Your task to perform on an android device: Open Youtube and go to the subscriptions tab Image 0: 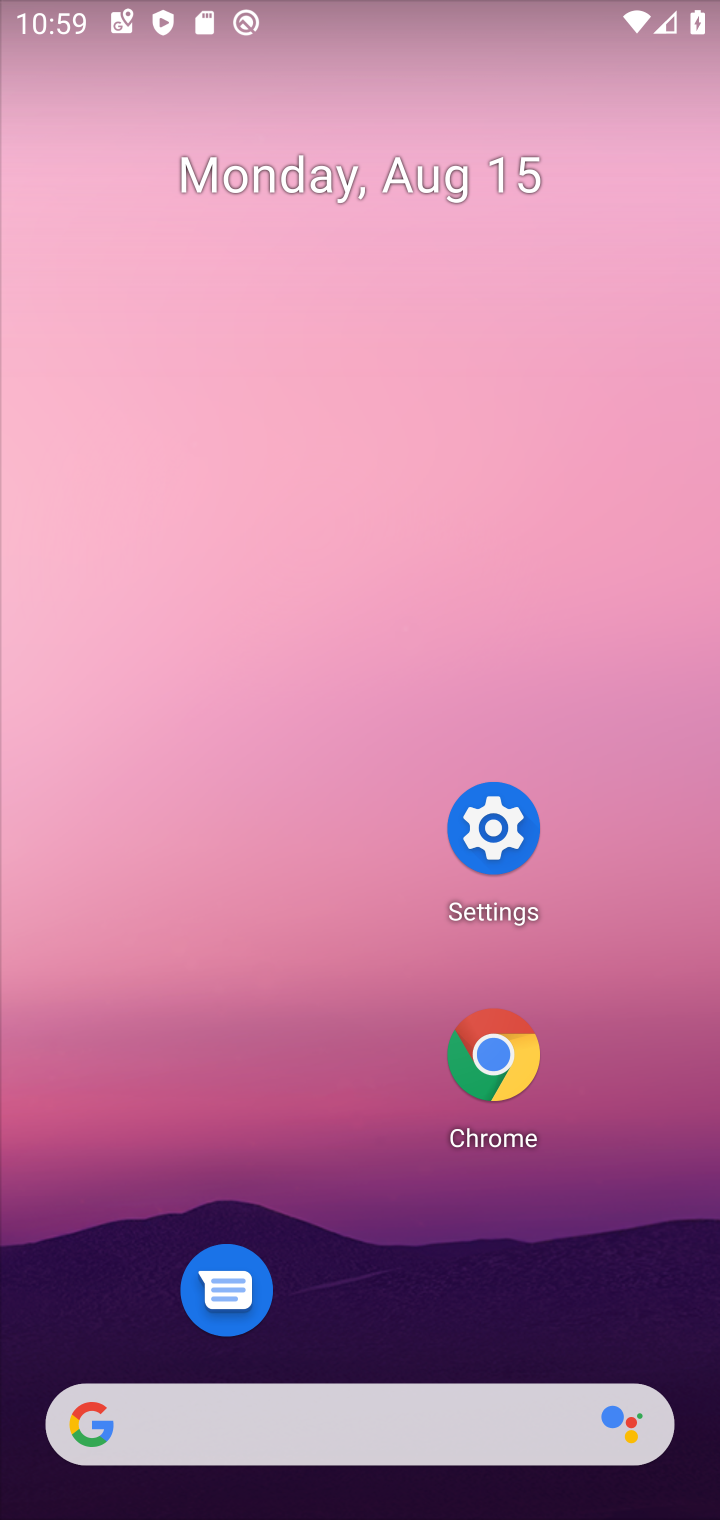
Step 0: press home button
Your task to perform on an android device: Open Youtube and go to the subscriptions tab Image 1: 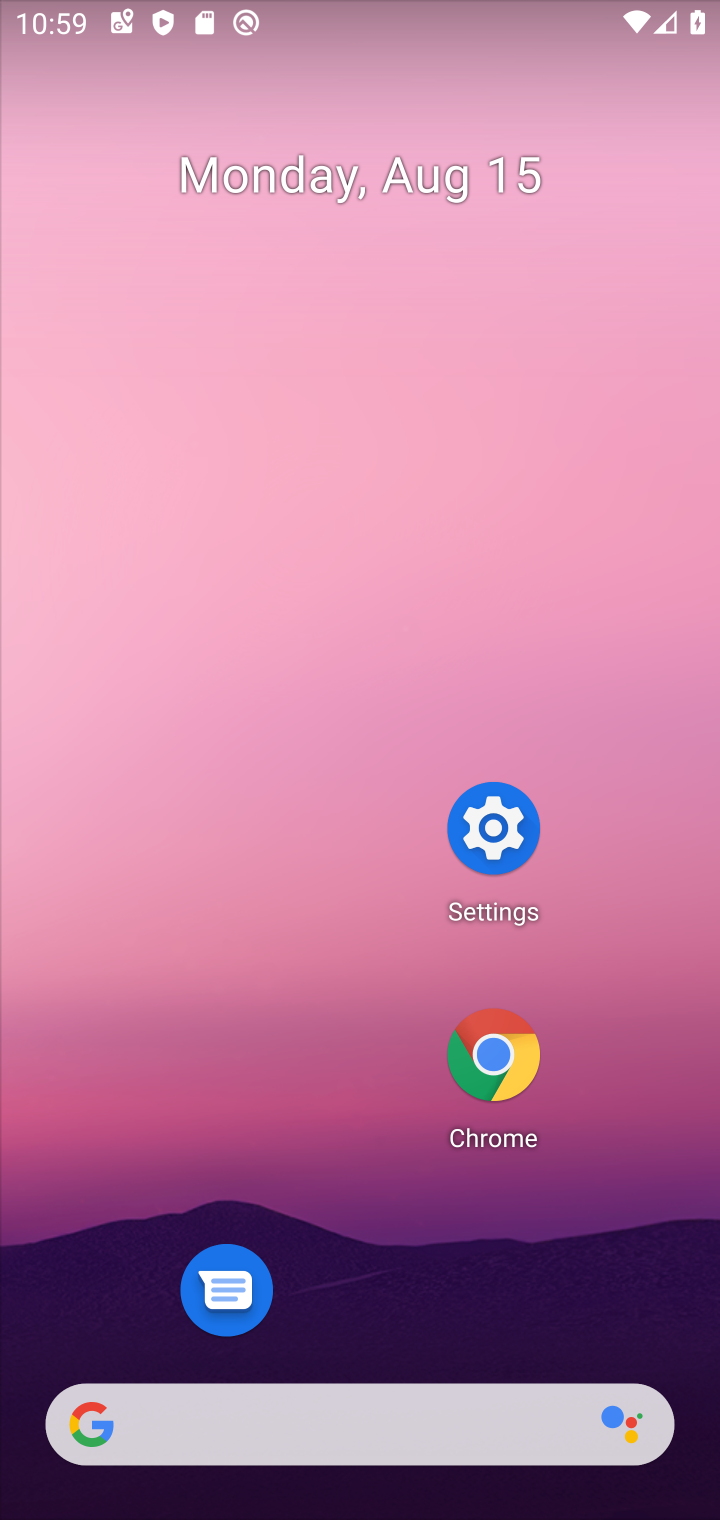
Step 1: drag from (308, 1412) to (598, 139)
Your task to perform on an android device: Open Youtube and go to the subscriptions tab Image 2: 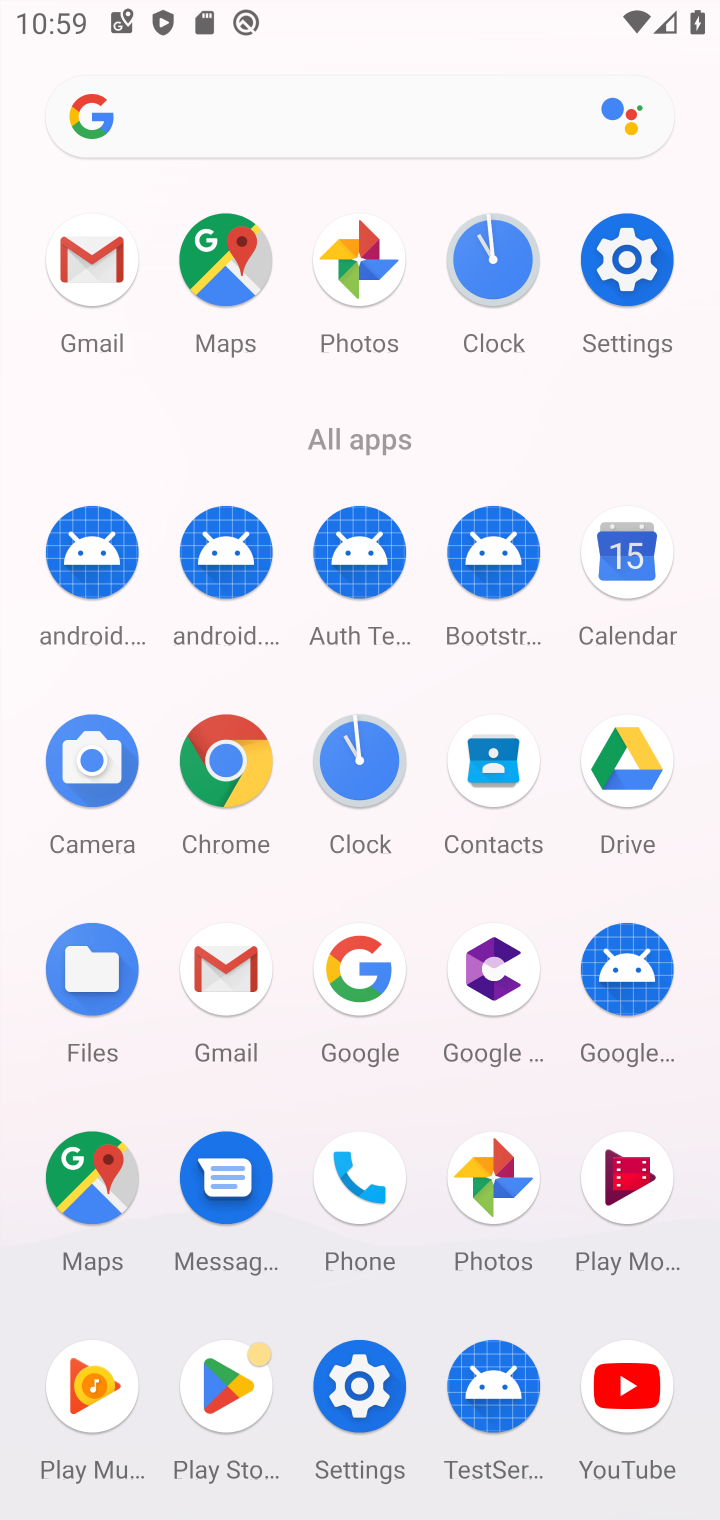
Step 2: click (627, 1388)
Your task to perform on an android device: Open Youtube and go to the subscriptions tab Image 3: 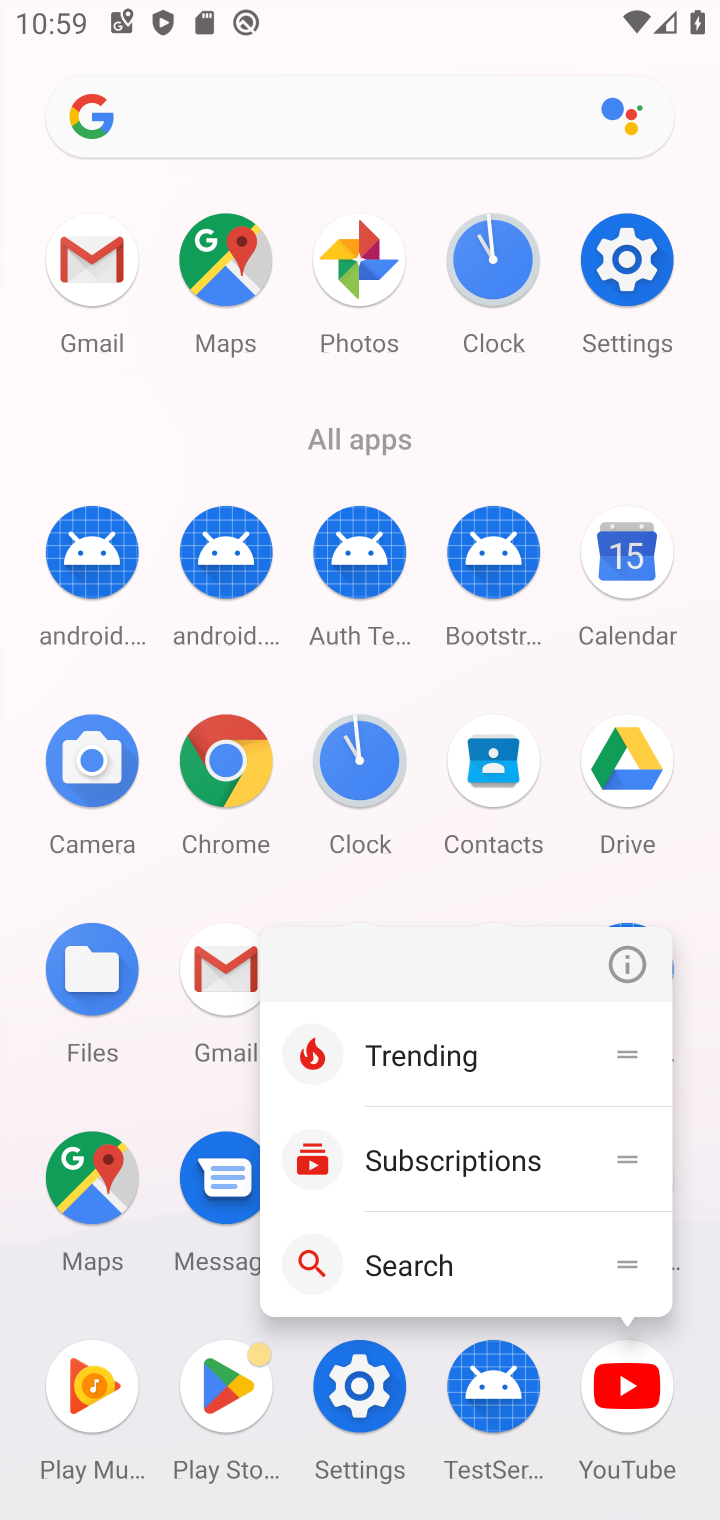
Step 3: click (627, 1386)
Your task to perform on an android device: Open Youtube and go to the subscriptions tab Image 4: 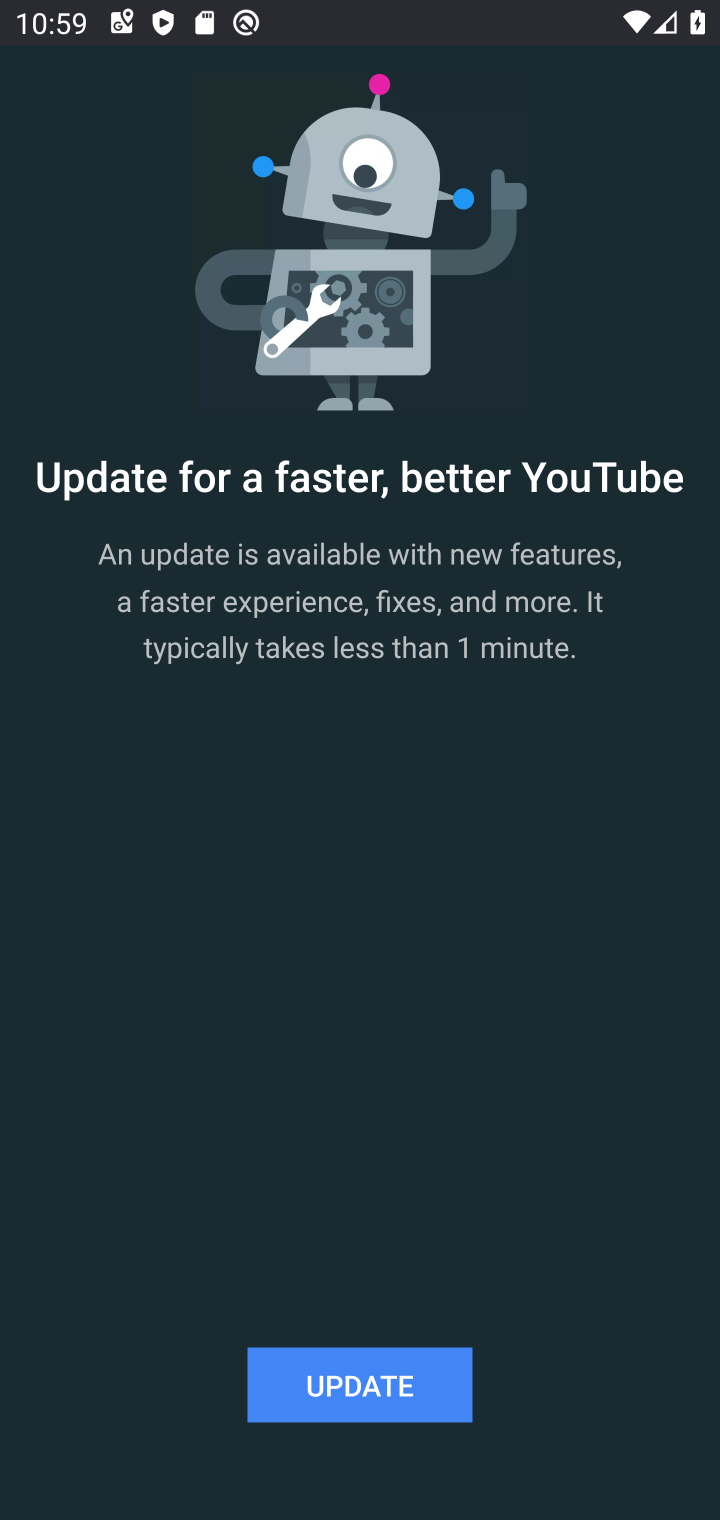
Step 4: click (386, 1385)
Your task to perform on an android device: Open Youtube and go to the subscriptions tab Image 5: 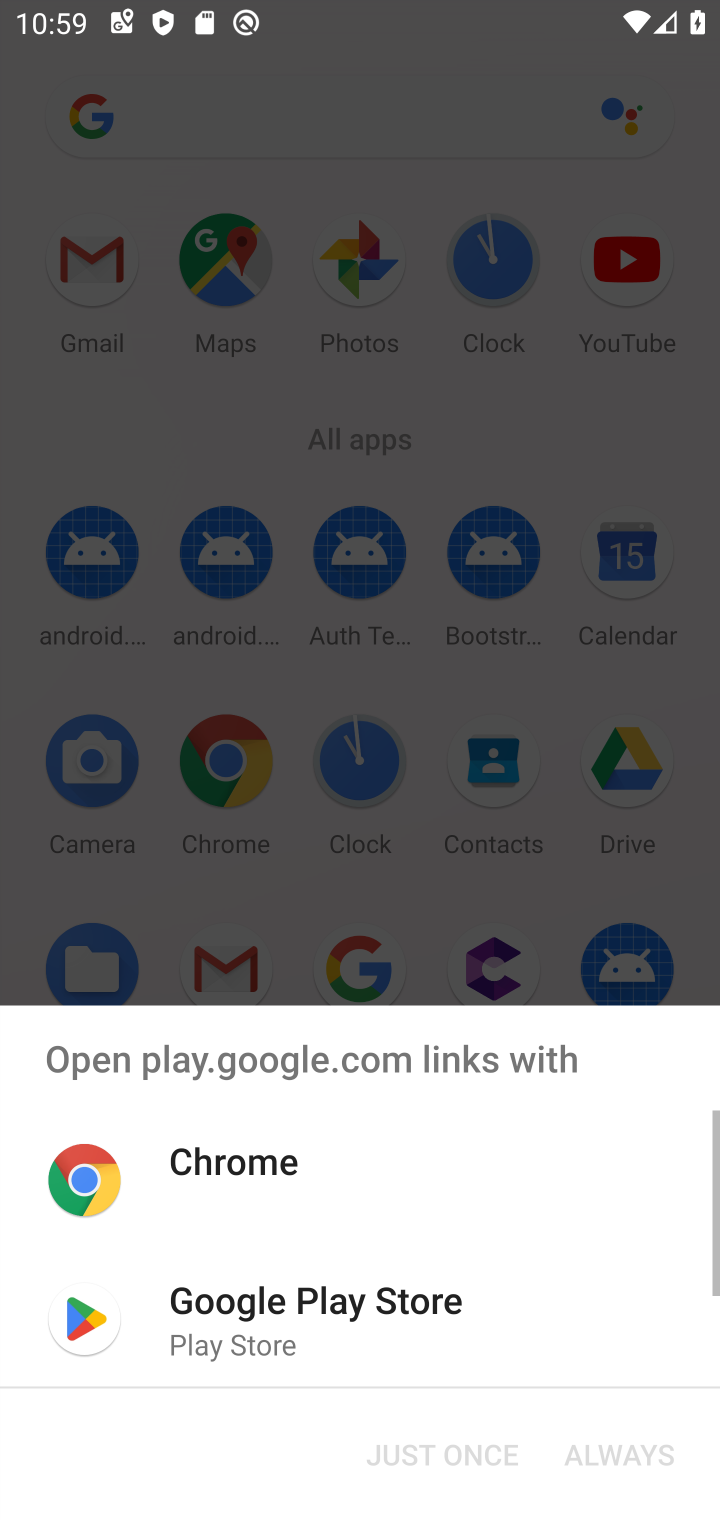
Step 5: click (343, 1316)
Your task to perform on an android device: Open Youtube and go to the subscriptions tab Image 6: 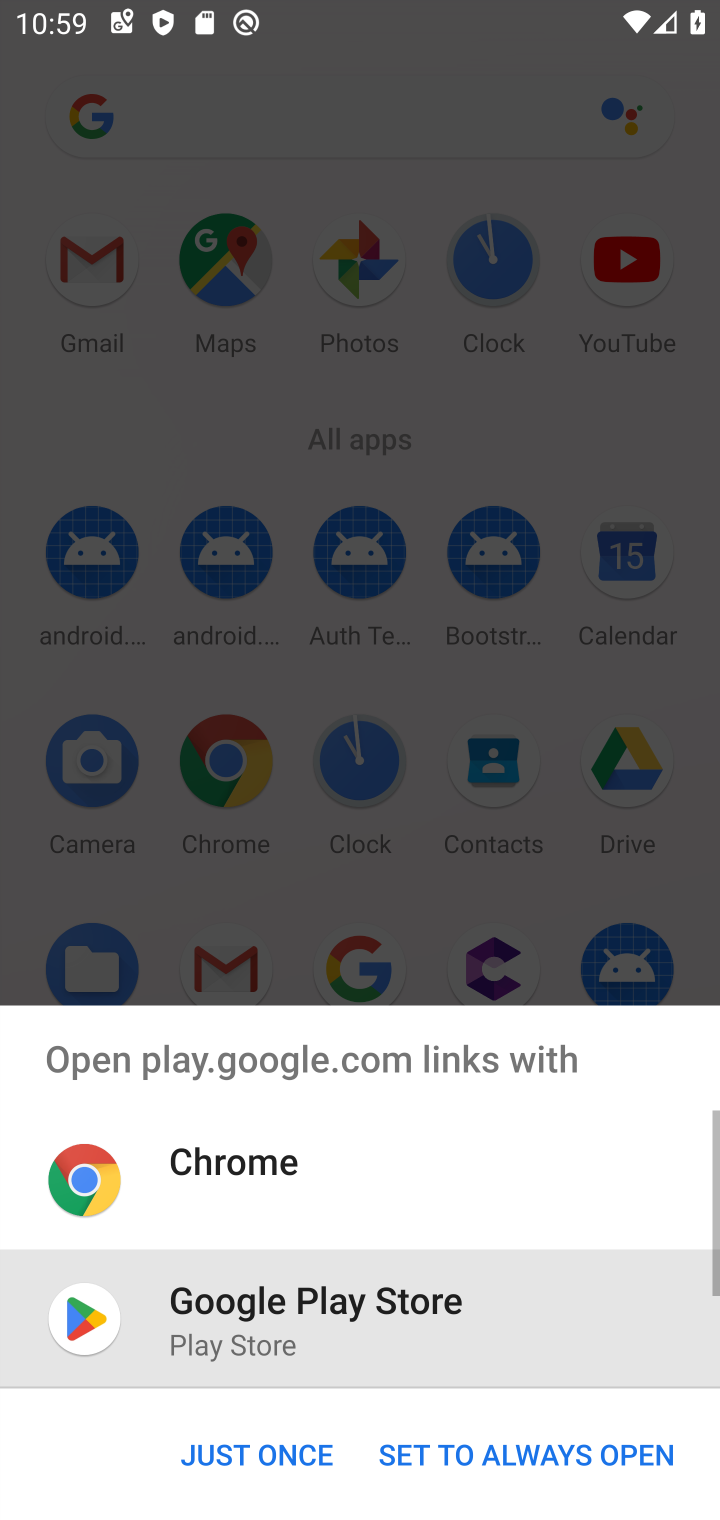
Step 6: click (269, 1444)
Your task to perform on an android device: Open Youtube and go to the subscriptions tab Image 7: 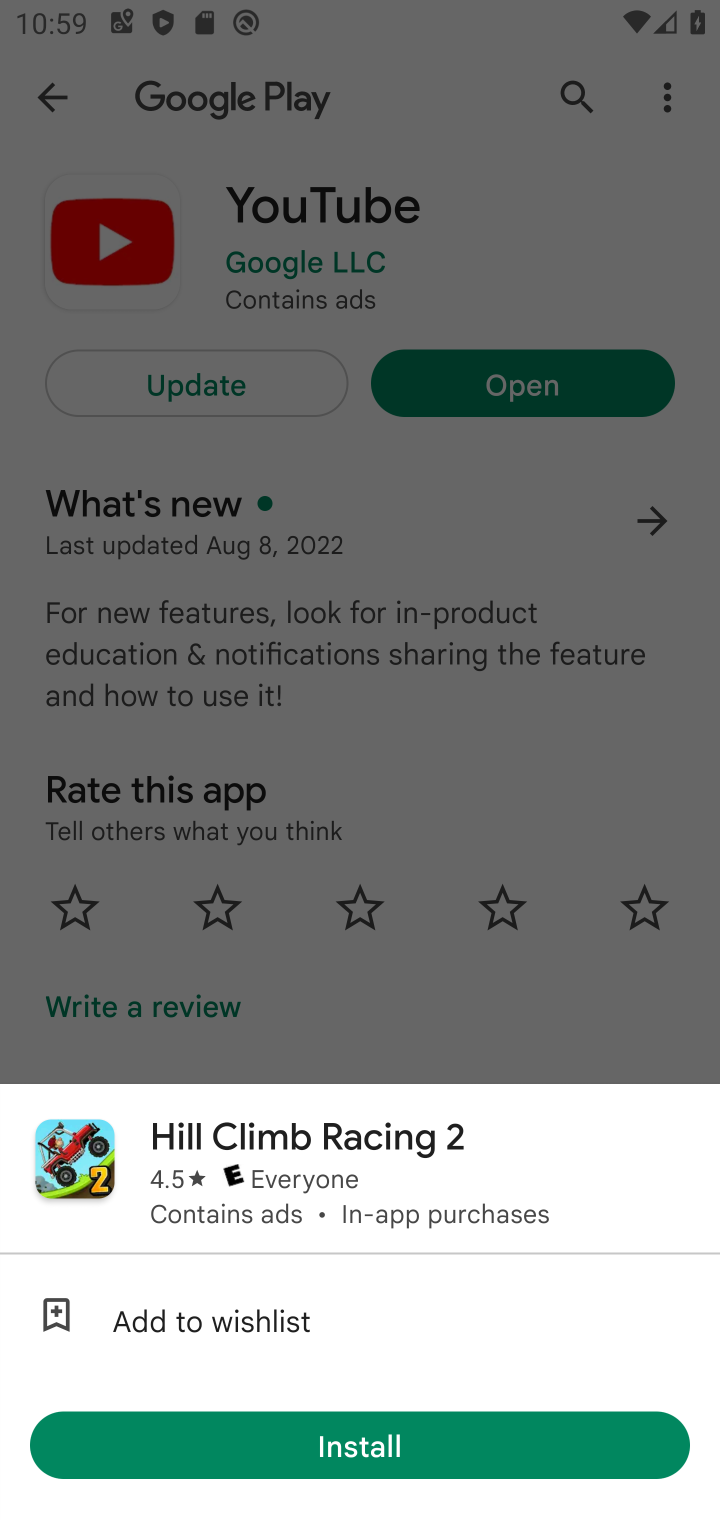
Step 7: click (471, 1010)
Your task to perform on an android device: Open Youtube and go to the subscriptions tab Image 8: 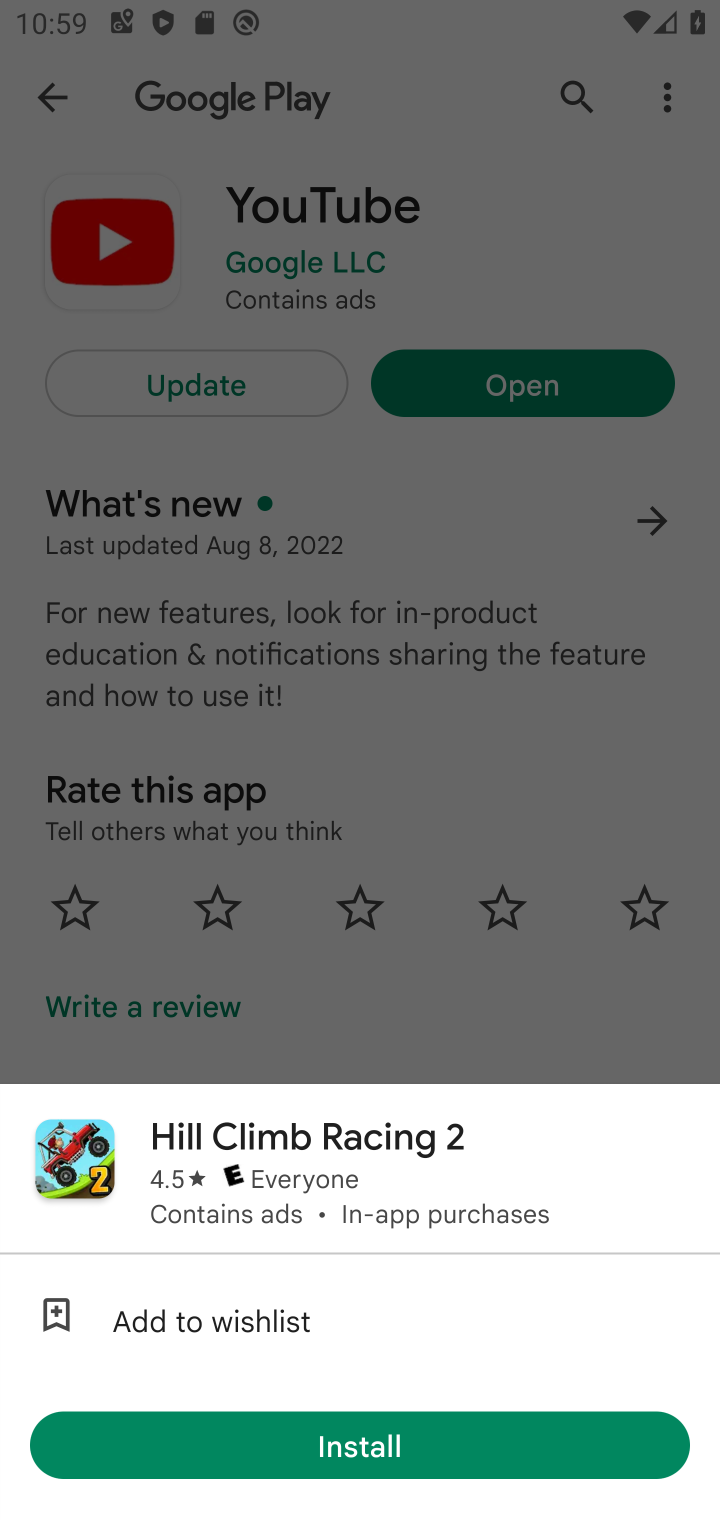
Step 8: drag from (438, 1157) to (501, 1514)
Your task to perform on an android device: Open Youtube and go to the subscriptions tab Image 9: 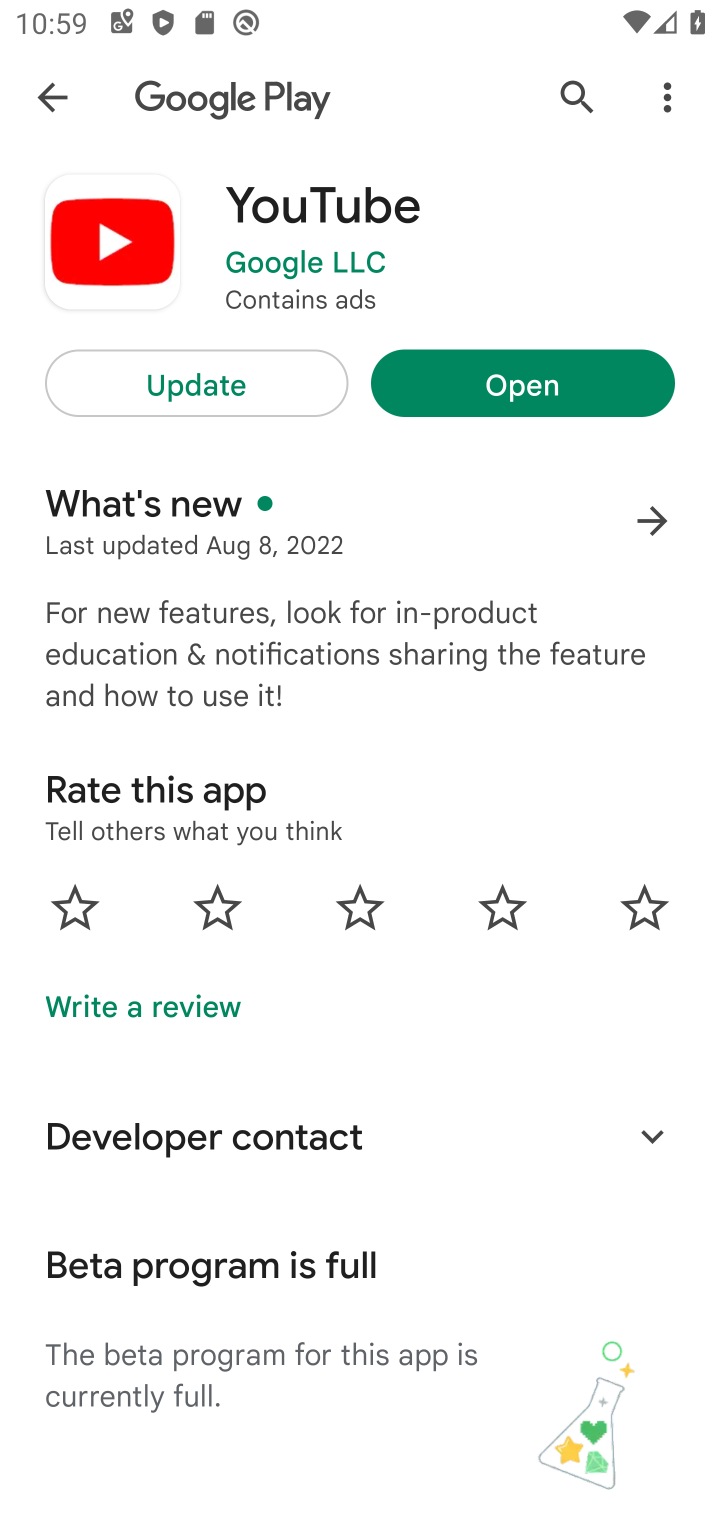
Step 9: click (279, 393)
Your task to perform on an android device: Open Youtube and go to the subscriptions tab Image 10: 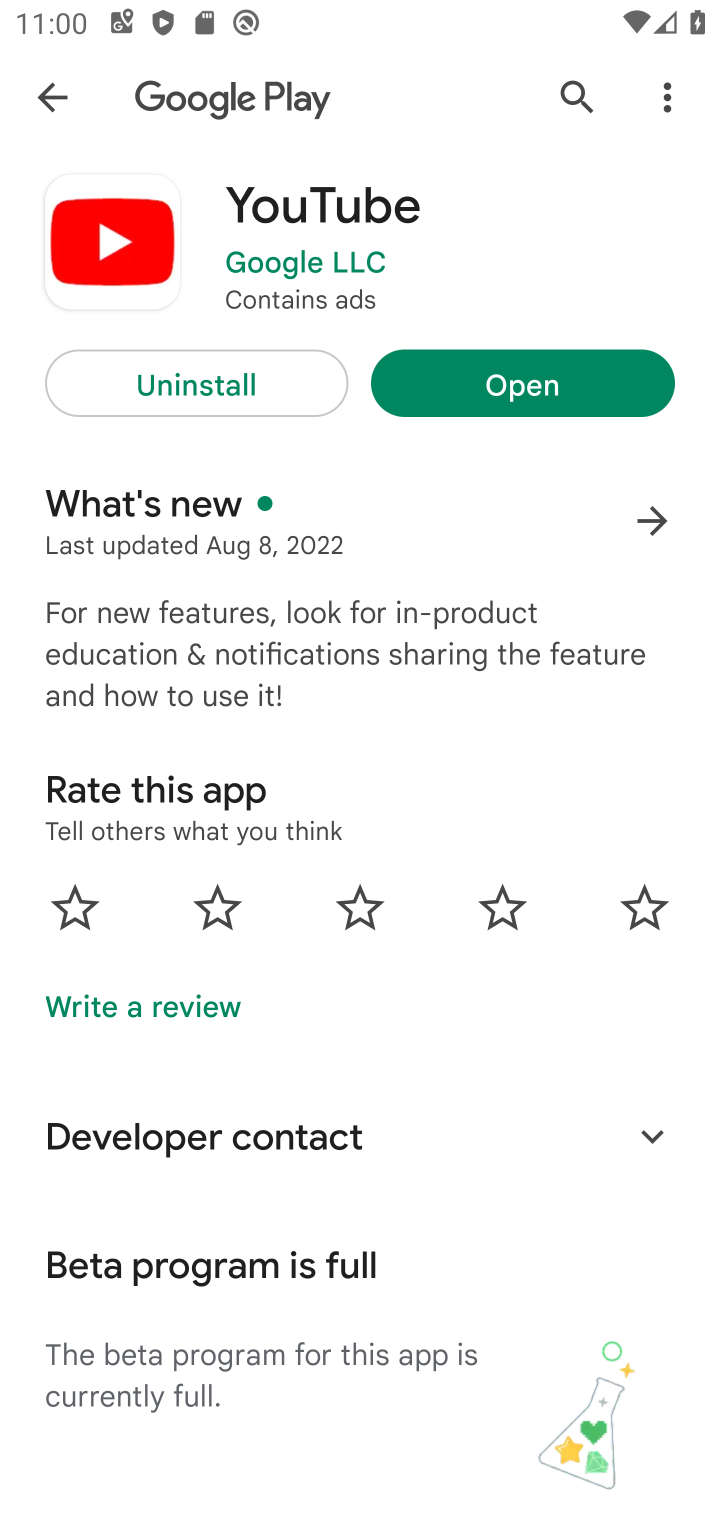
Step 10: click (538, 387)
Your task to perform on an android device: Open Youtube and go to the subscriptions tab Image 11: 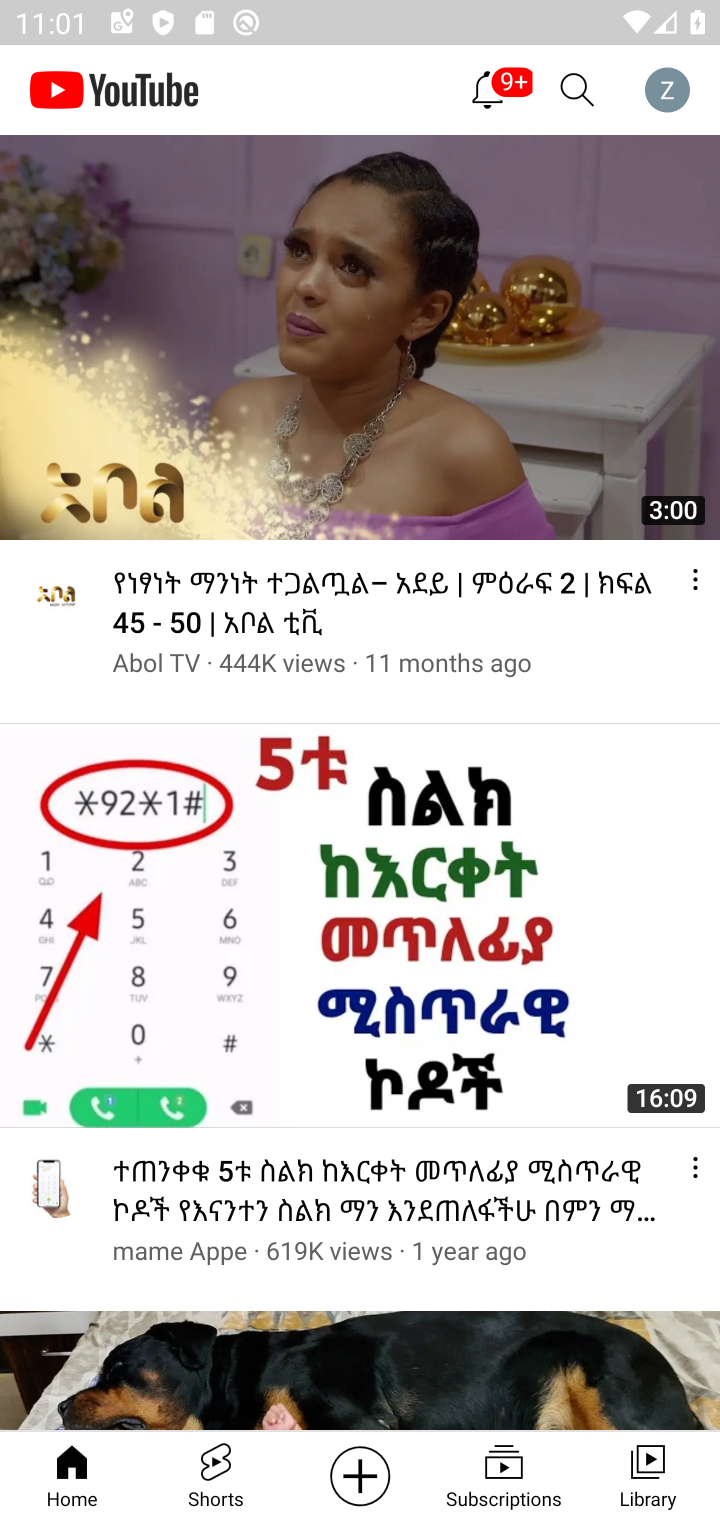
Step 11: click (500, 1472)
Your task to perform on an android device: Open Youtube and go to the subscriptions tab Image 12: 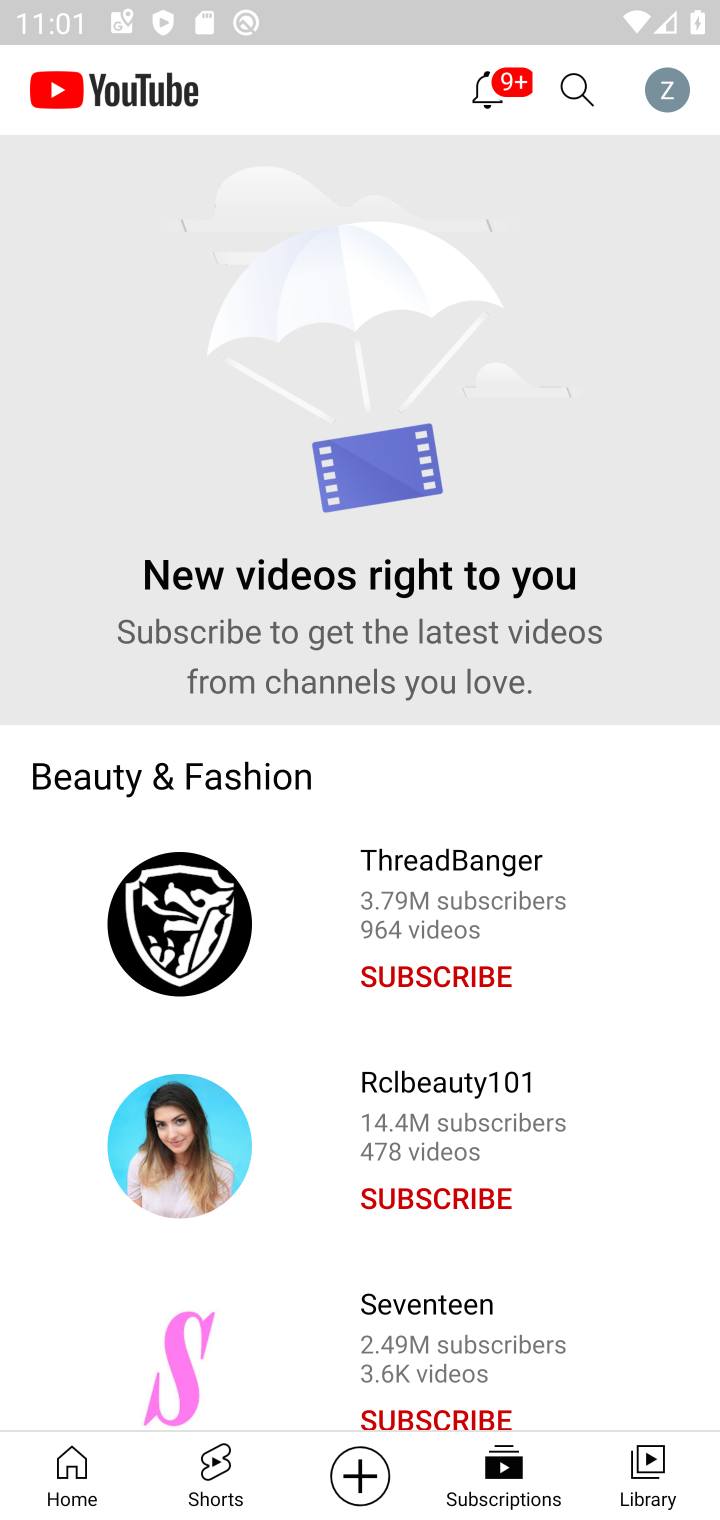
Step 12: task complete